Your task to perform on an android device: Go to settings Image 0: 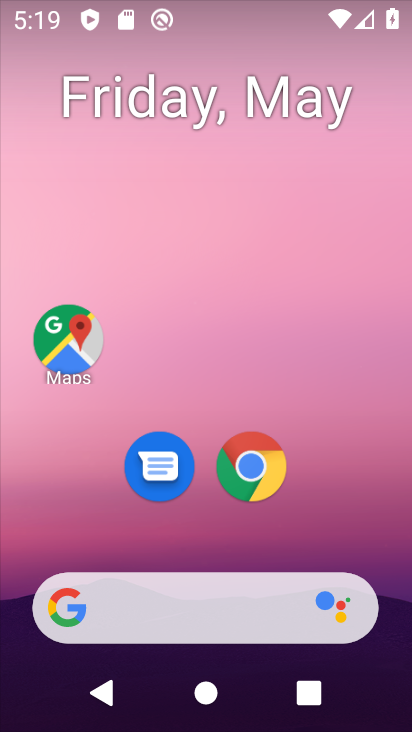
Step 0: drag from (372, 501) to (260, 13)
Your task to perform on an android device: Go to settings Image 1: 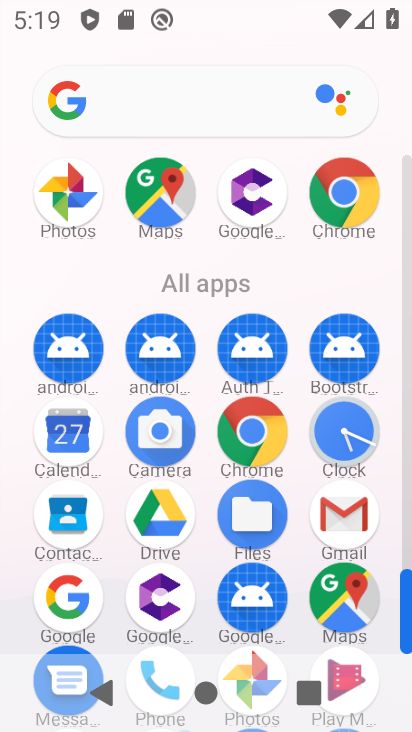
Step 1: drag from (5, 474) to (7, 210)
Your task to perform on an android device: Go to settings Image 2: 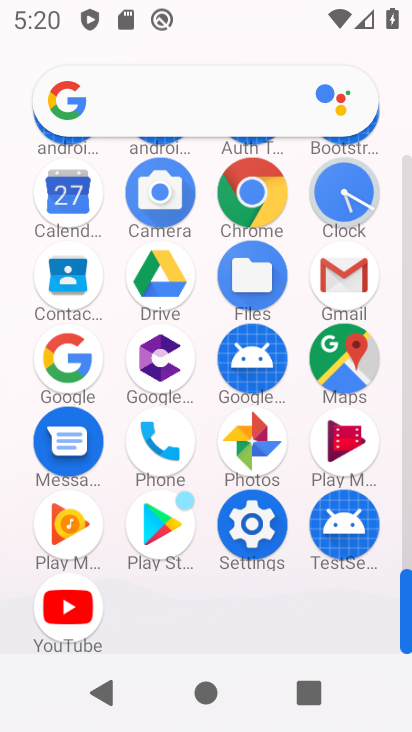
Step 2: click (249, 515)
Your task to perform on an android device: Go to settings Image 3: 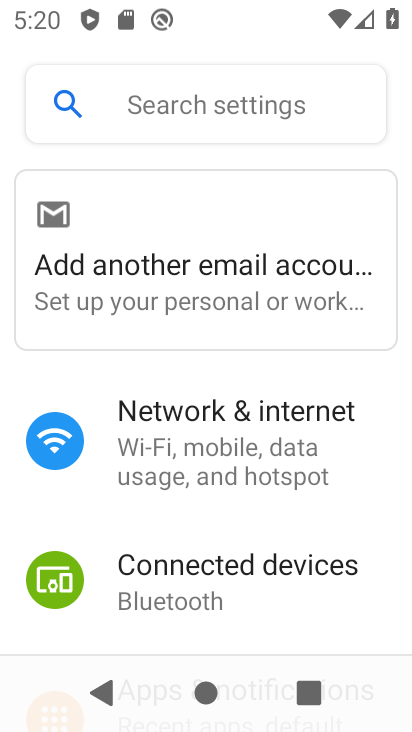
Step 3: task complete